Your task to perform on an android device: change the clock style Image 0: 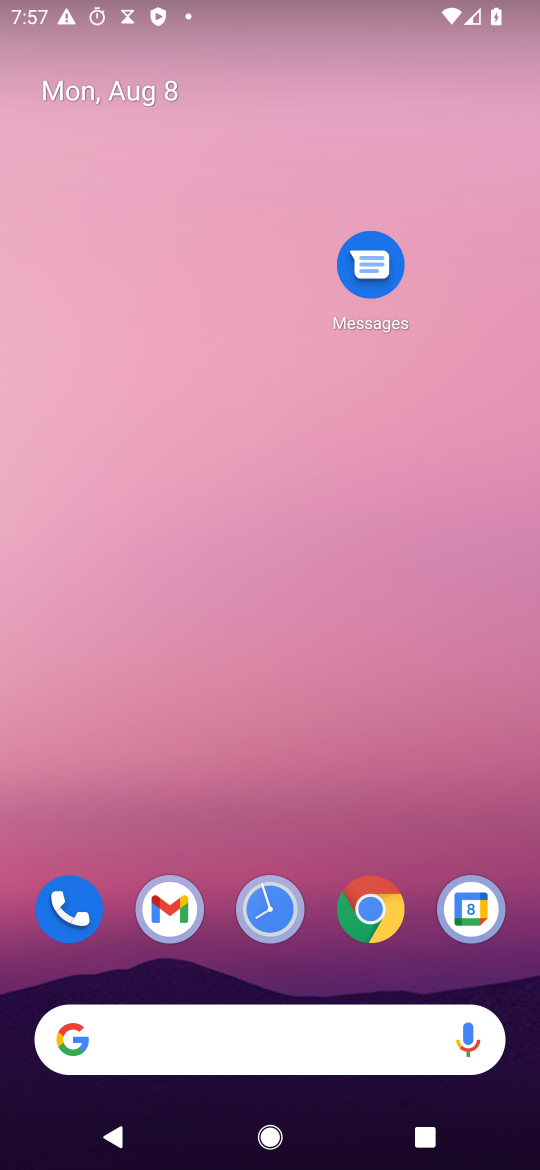
Step 0: click (272, 905)
Your task to perform on an android device: change the clock style Image 1: 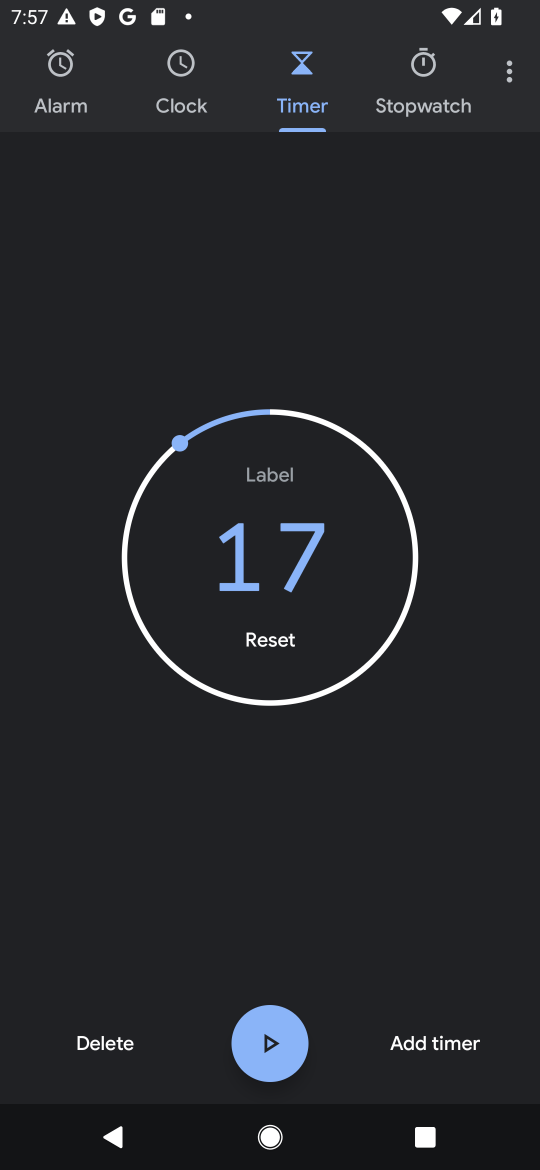
Step 1: click (510, 71)
Your task to perform on an android device: change the clock style Image 2: 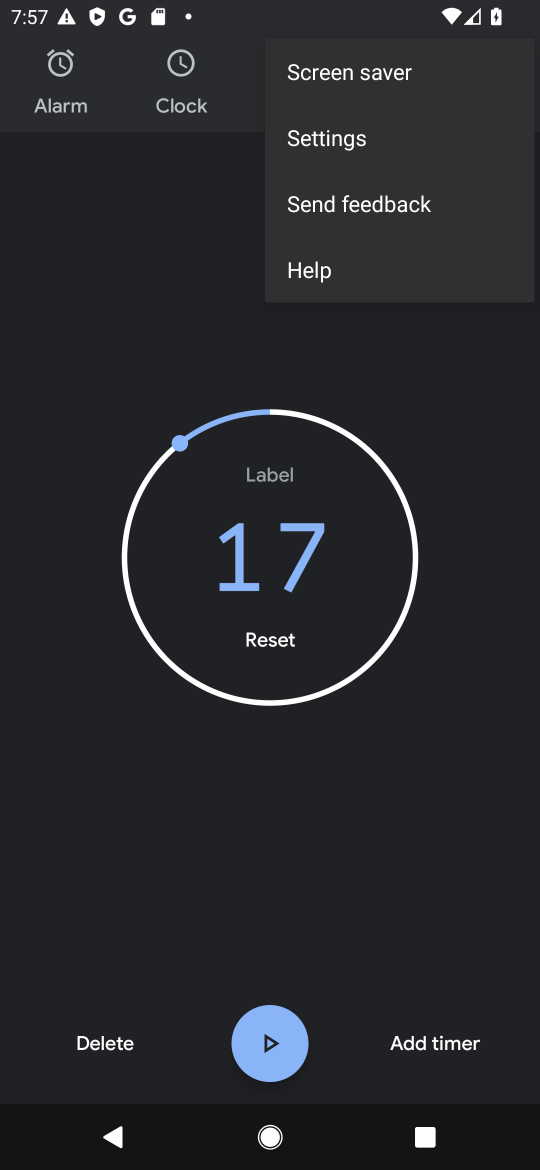
Step 2: click (348, 149)
Your task to perform on an android device: change the clock style Image 3: 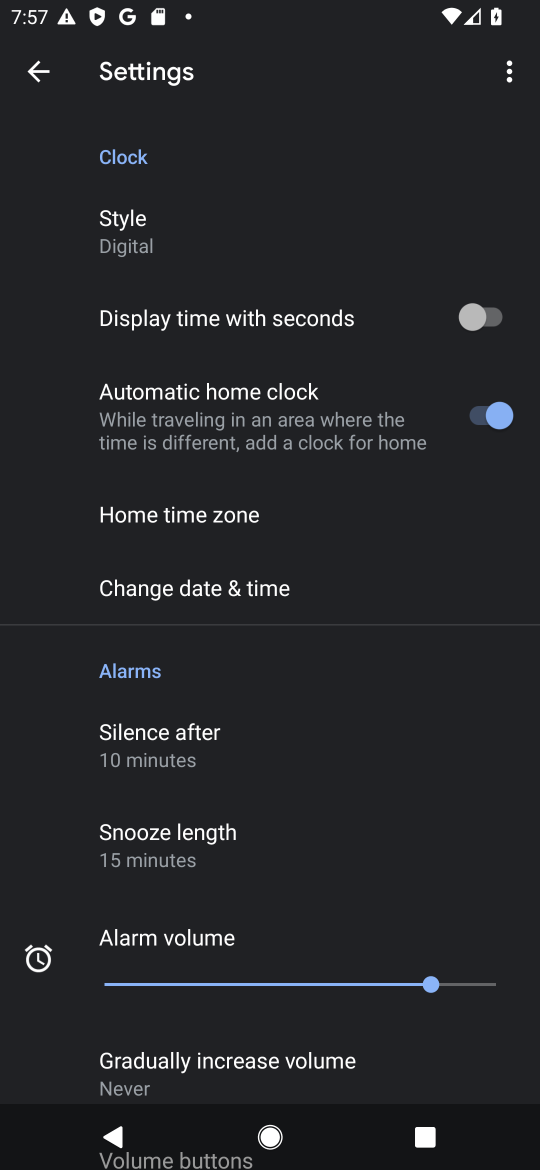
Step 3: click (145, 254)
Your task to perform on an android device: change the clock style Image 4: 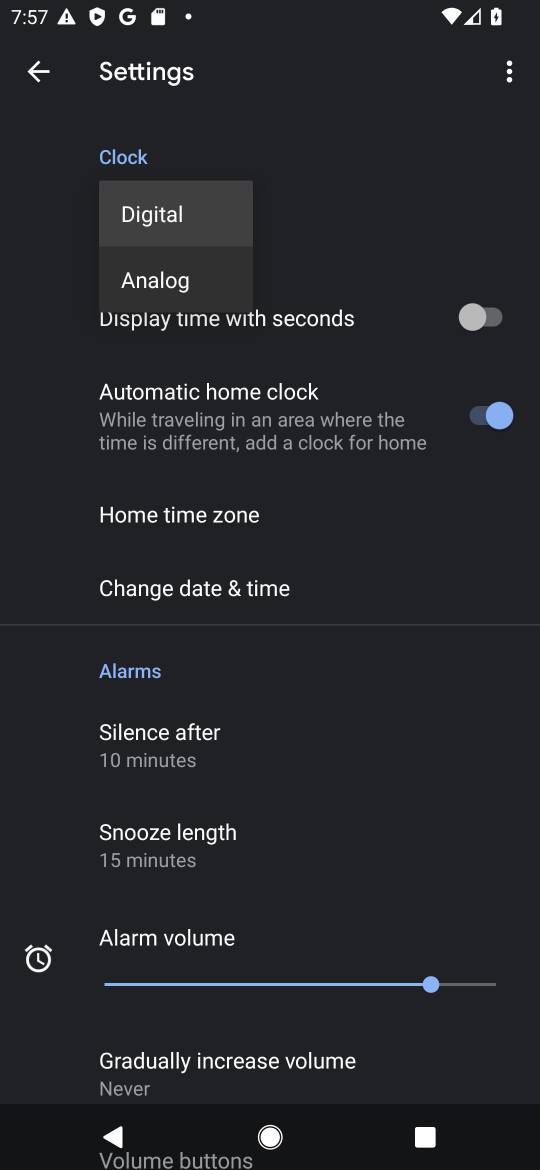
Step 4: click (189, 280)
Your task to perform on an android device: change the clock style Image 5: 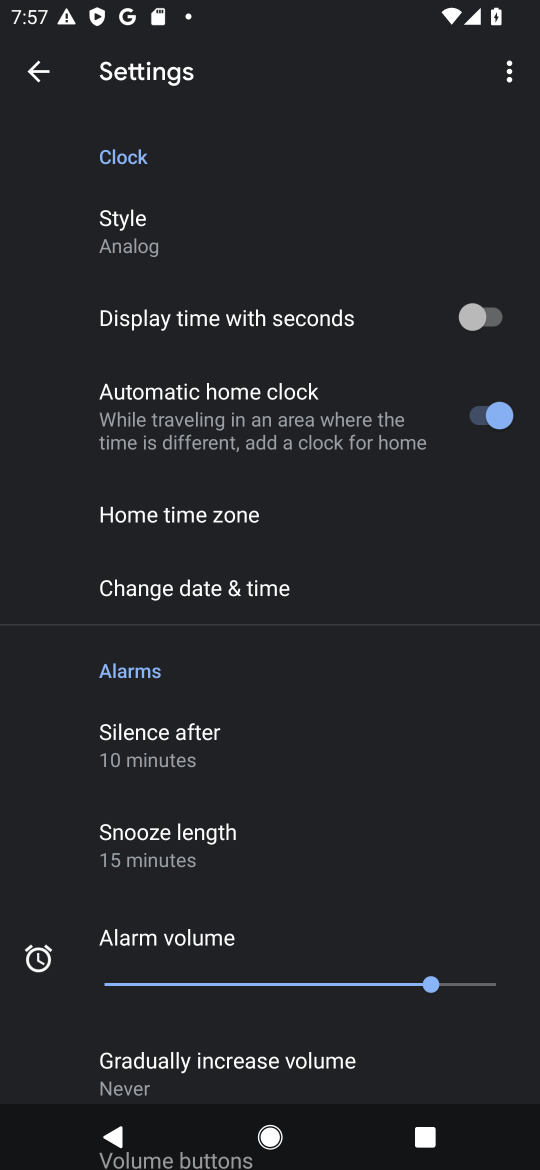
Step 5: task complete